Your task to perform on an android device: Clear the cart on target.com. Add "bose soundsport free" to the cart on target.com Image 0: 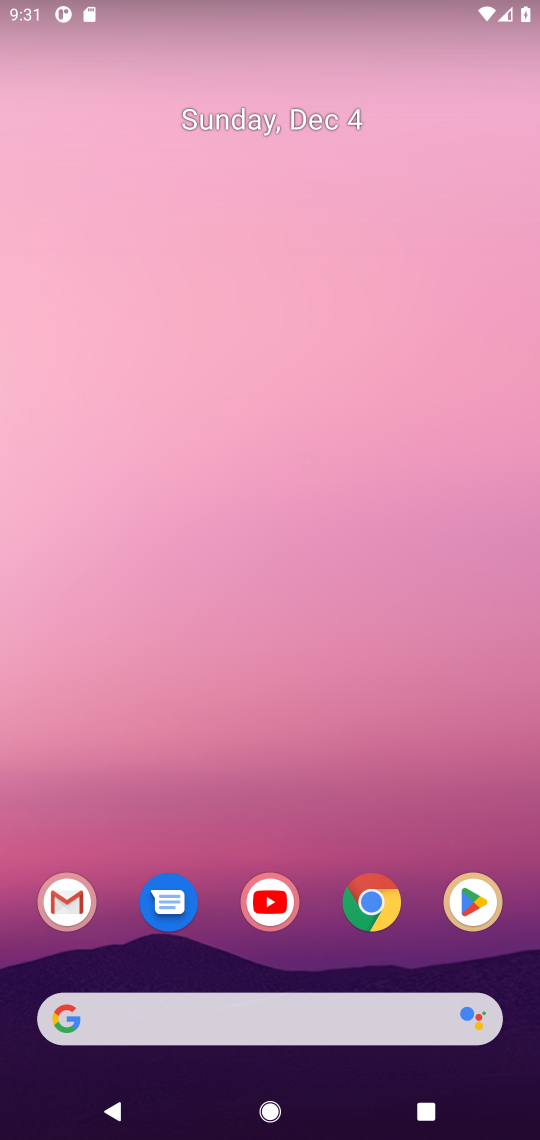
Step 0: click (382, 911)
Your task to perform on an android device: Clear the cart on target.com. Add "bose soundsport free" to the cart on target.com Image 1: 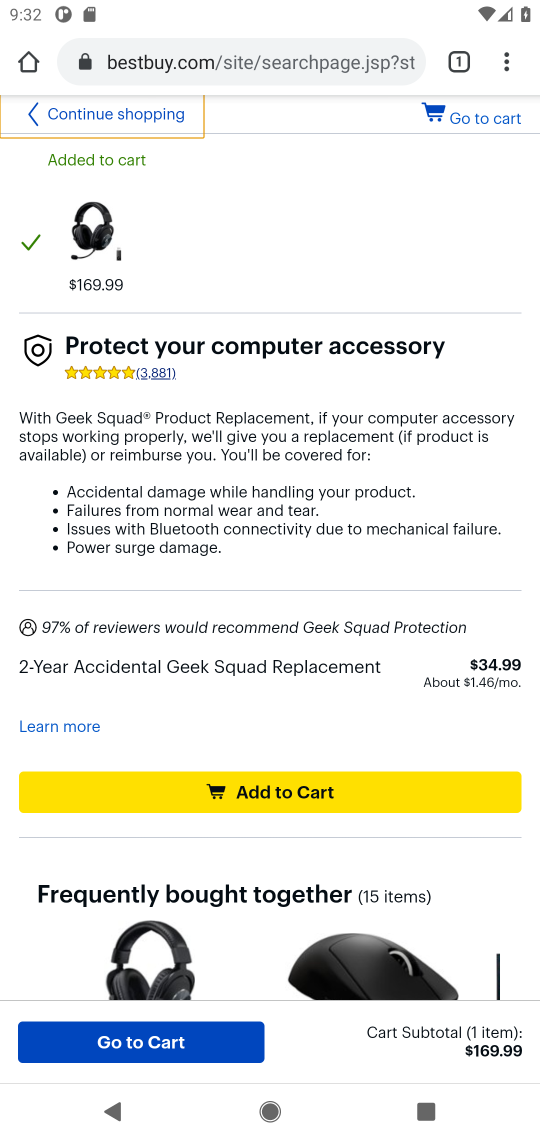
Step 1: click (266, 60)
Your task to perform on an android device: Clear the cart on target.com. Add "bose soundsport free" to the cart on target.com Image 2: 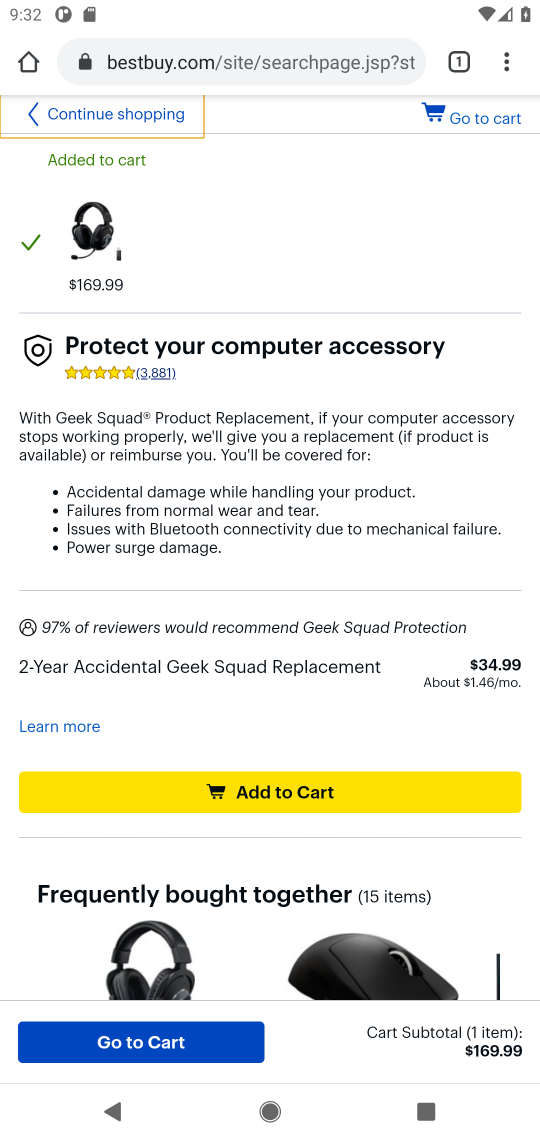
Step 2: click (266, 60)
Your task to perform on an android device: Clear the cart on target.com. Add "bose soundsport free" to the cart on target.com Image 3: 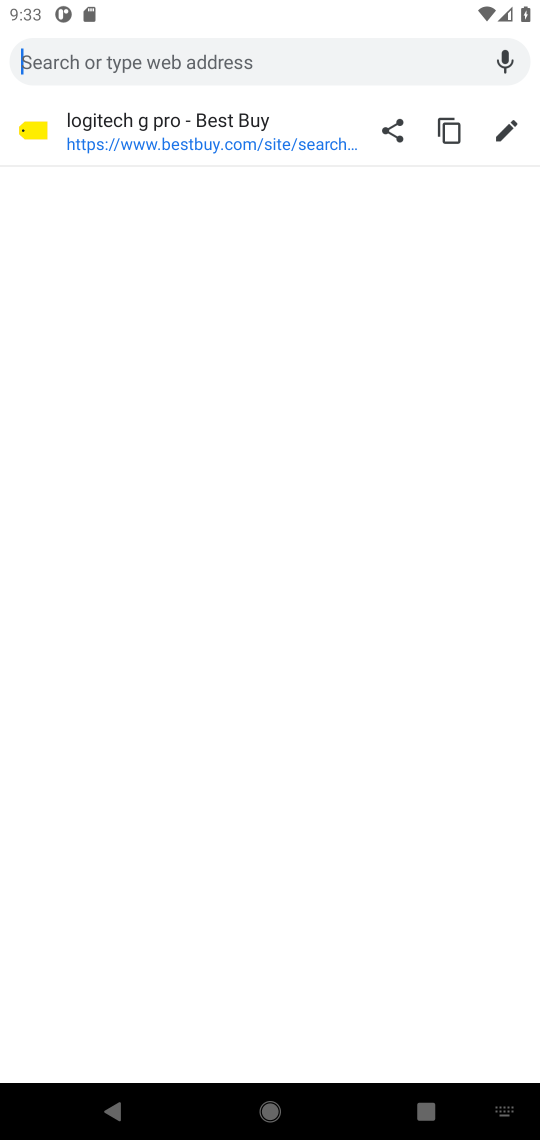
Step 3: type "target"
Your task to perform on an android device: Clear the cart on target.com. Add "bose soundsport free" to the cart on target.com Image 4: 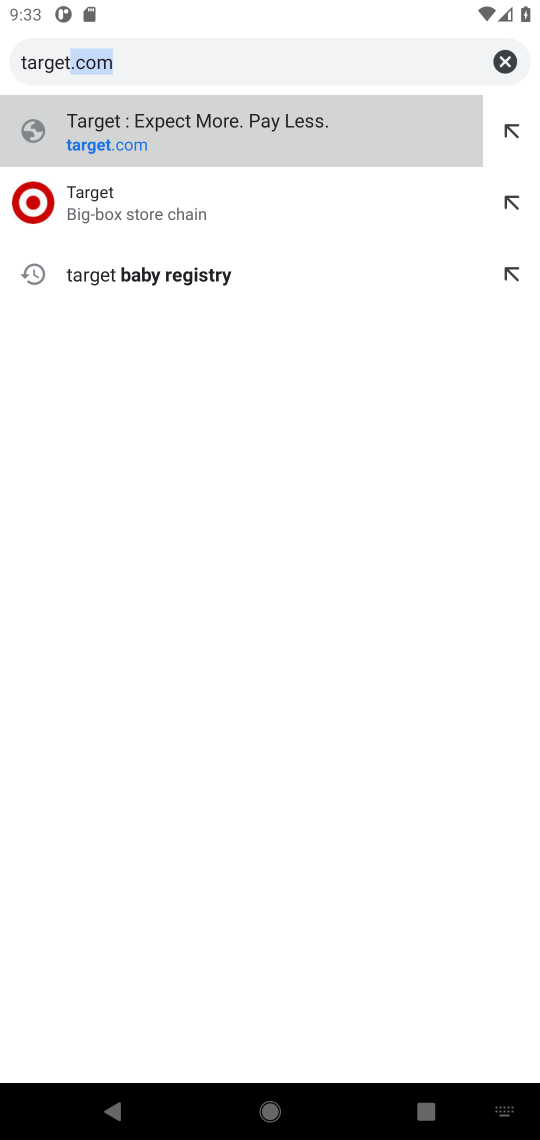
Step 4: click (96, 194)
Your task to perform on an android device: Clear the cart on target.com. Add "bose soundsport free" to the cart on target.com Image 5: 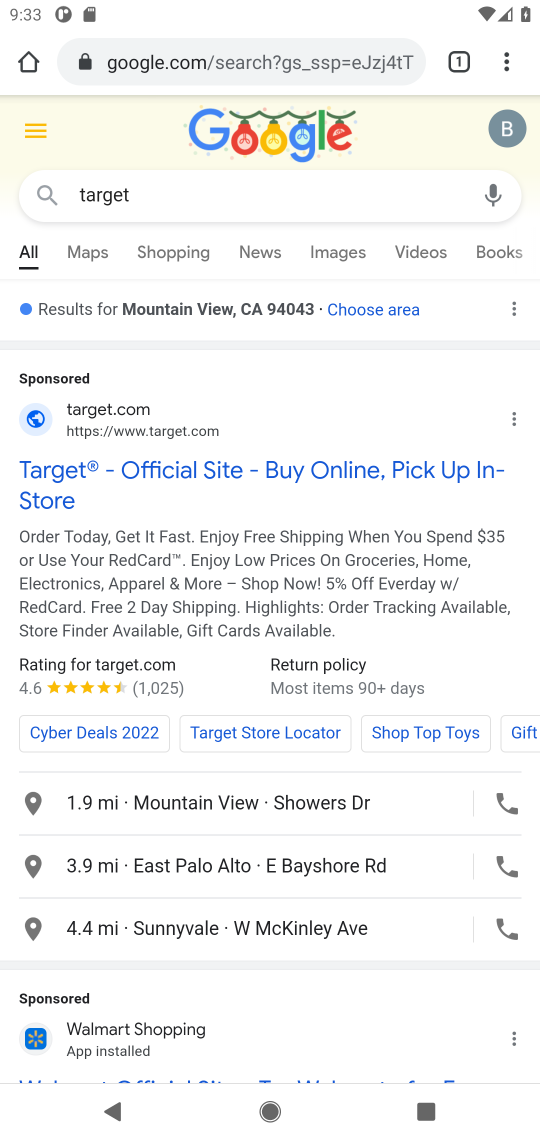
Step 5: click (191, 475)
Your task to perform on an android device: Clear the cart on target.com. Add "bose soundsport free" to the cart on target.com Image 6: 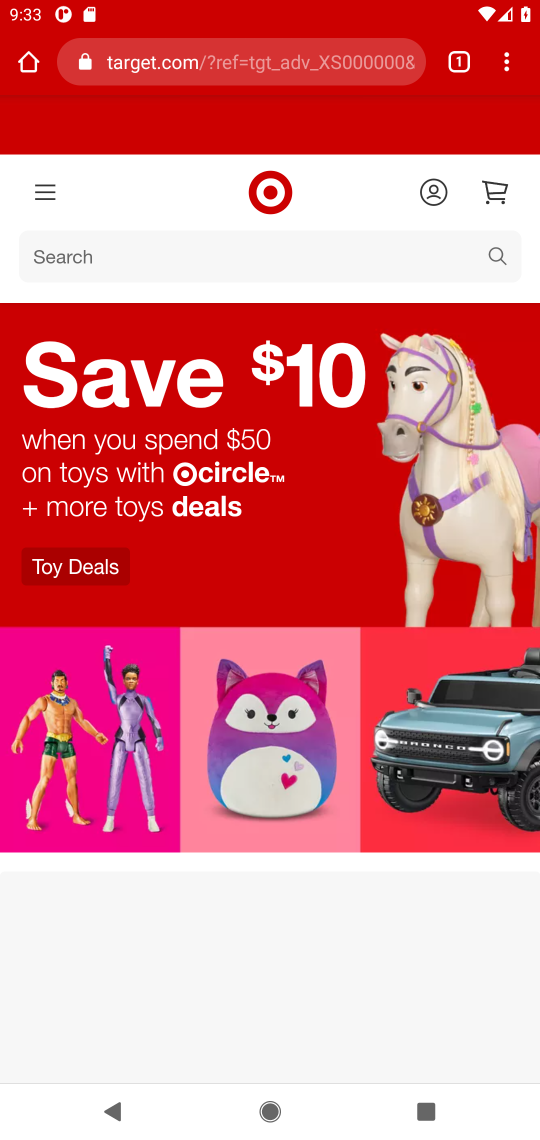
Step 6: click (498, 199)
Your task to perform on an android device: Clear the cart on target.com. Add "bose soundsport free" to the cart on target.com Image 7: 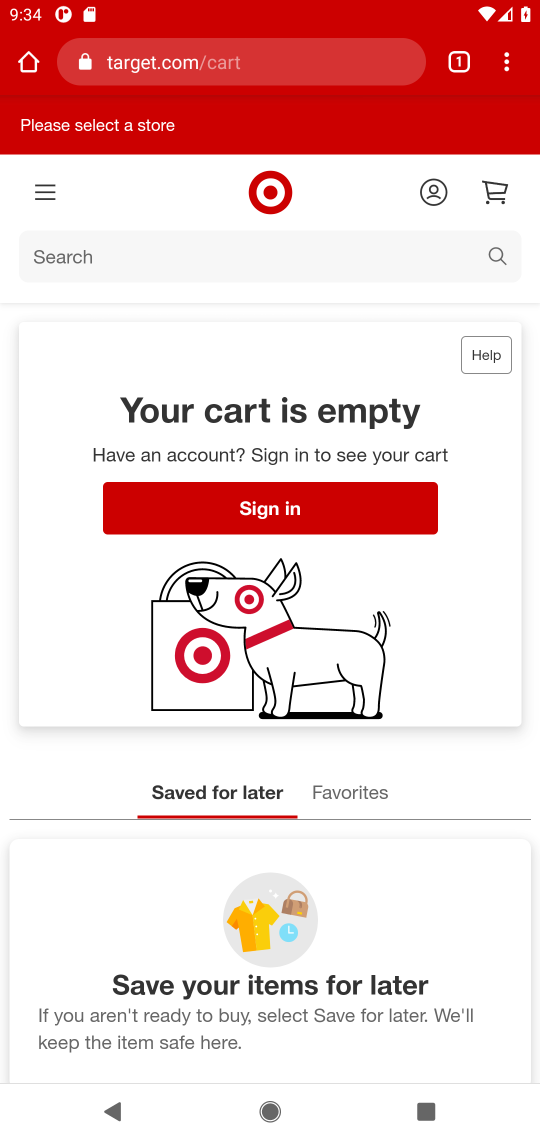
Step 7: click (201, 263)
Your task to perform on an android device: Clear the cart on target.com. Add "bose soundsport free" to the cart on target.com Image 8: 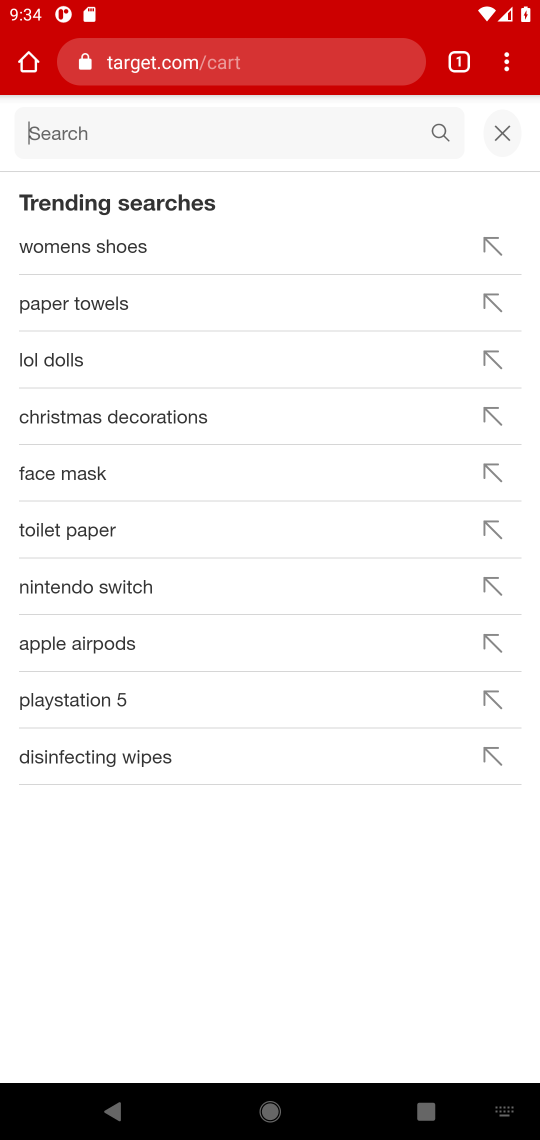
Step 8: type "bose soundsport free"
Your task to perform on an android device: Clear the cart on target.com. Add "bose soundsport free" to the cart on target.com Image 9: 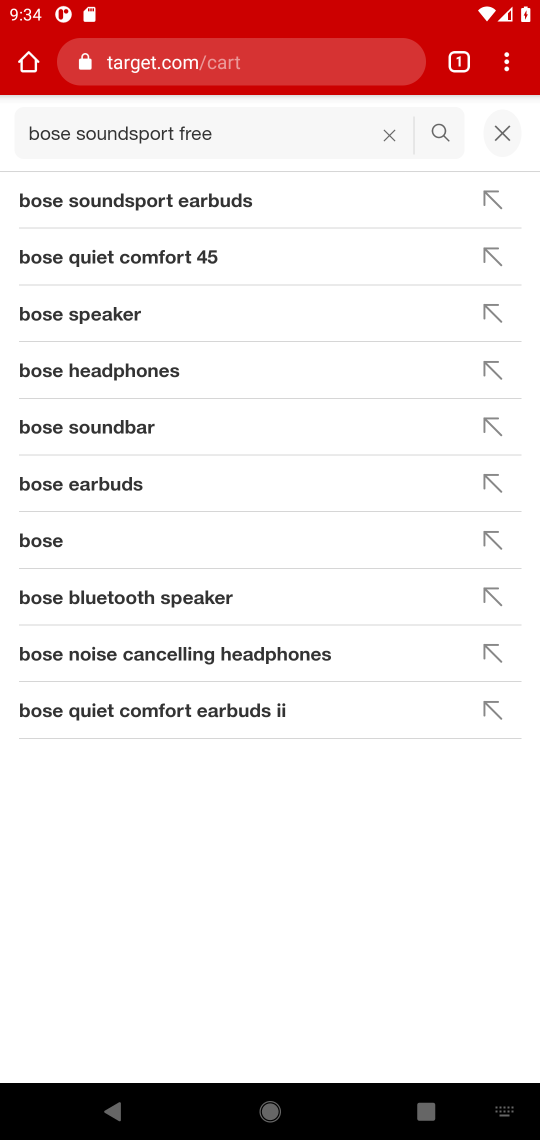
Step 9: click (441, 138)
Your task to perform on an android device: Clear the cart on target.com. Add "bose soundsport free" to the cart on target.com Image 10: 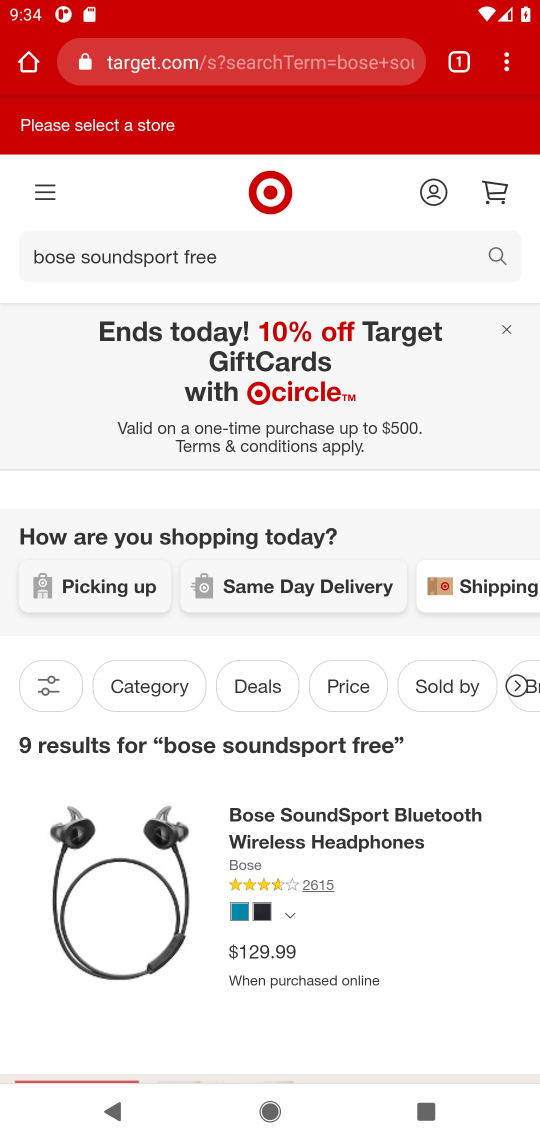
Step 10: drag from (414, 866) to (463, 367)
Your task to perform on an android device: Clear the cart on target.com. Add "bose soundsport free" to the cart on target.com Image 11: 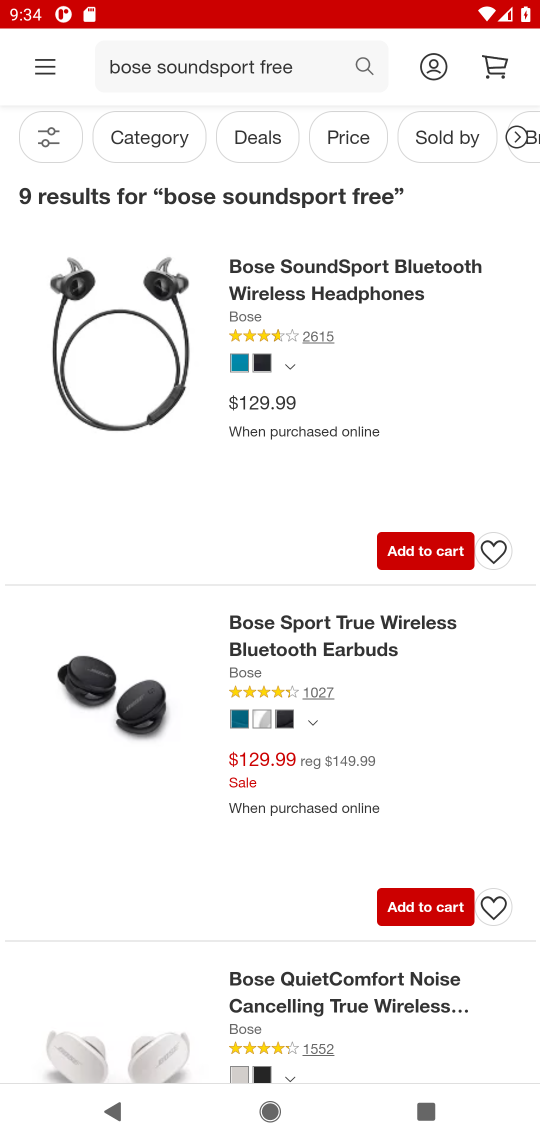
Step 11: click (403, 544)
Your task to perform on an android device: Clear the cart on target.com. Add "bose soundsport free" to the cart on target.com Image 12: 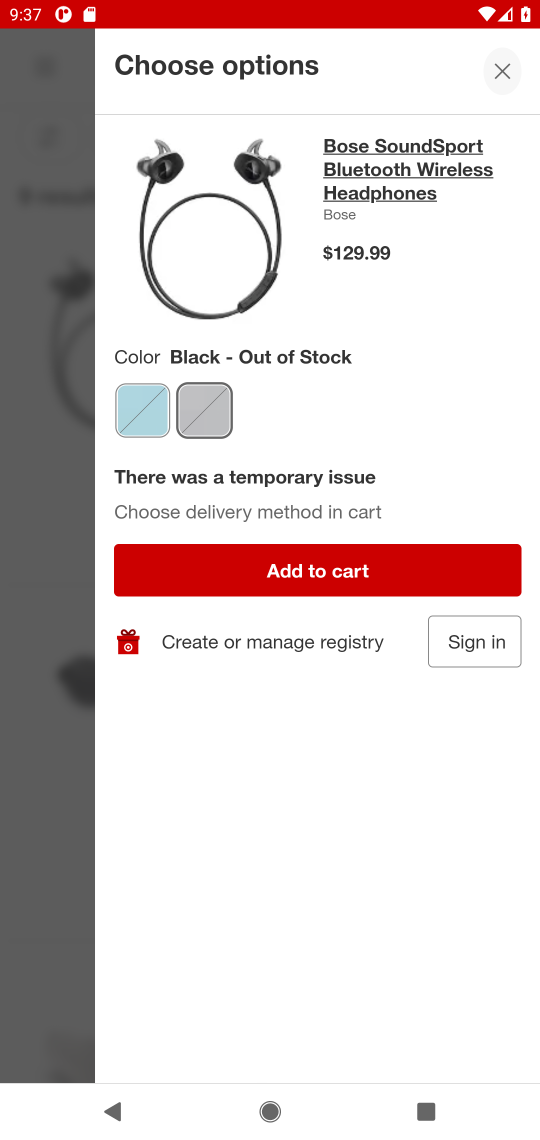
Step 12: task complete